Your task to perform on an android device: refresh tabs in the chrome app Image 0: 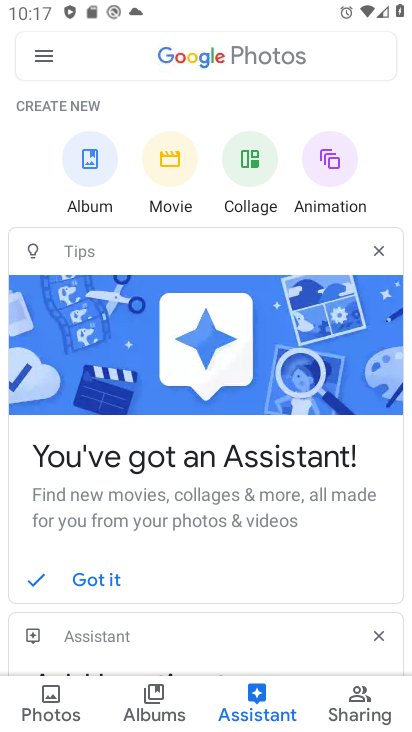
Step 0: press home button
Your task to perform on an android device: refresh tabs in the chrome app Image 1: 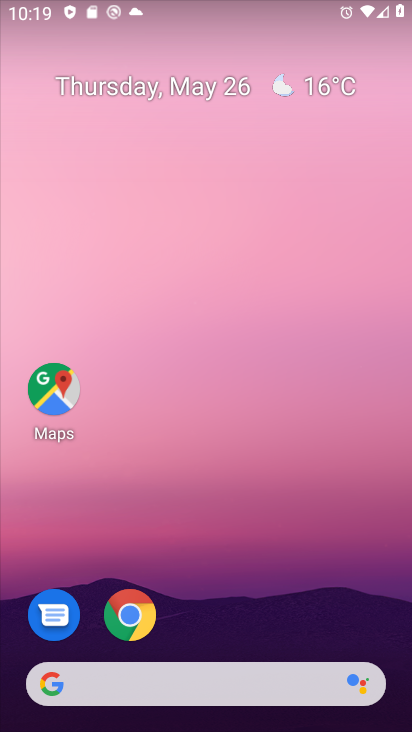
Step 1: drag from (222, 714) to (222, 109)
Your task to perform on an android device: refresh tabs in the chrome app Image 2: 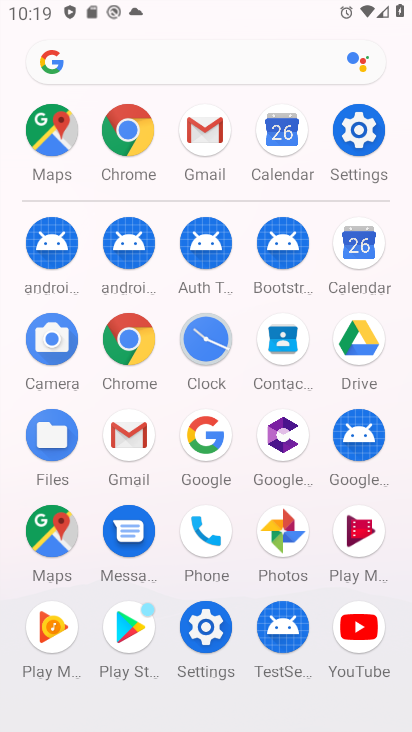
Step 2: click (128, 339)
Your task to perform on an android device: refresh tabs in the chrome app Image 3: 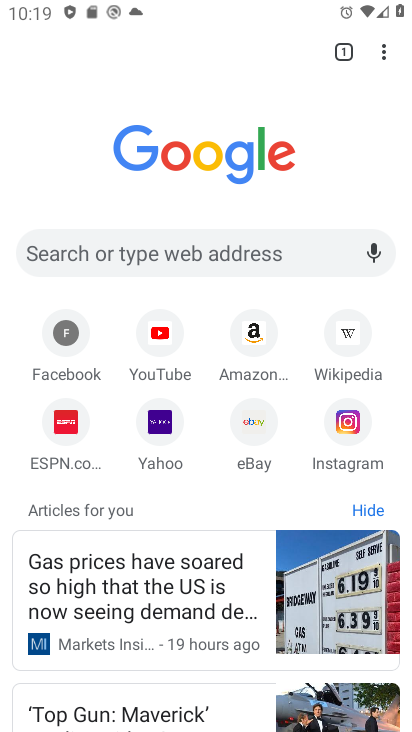
Step 3: click (382, 60)
Your task to perform on an android device: refresh tabs in the chrome app Image 4: 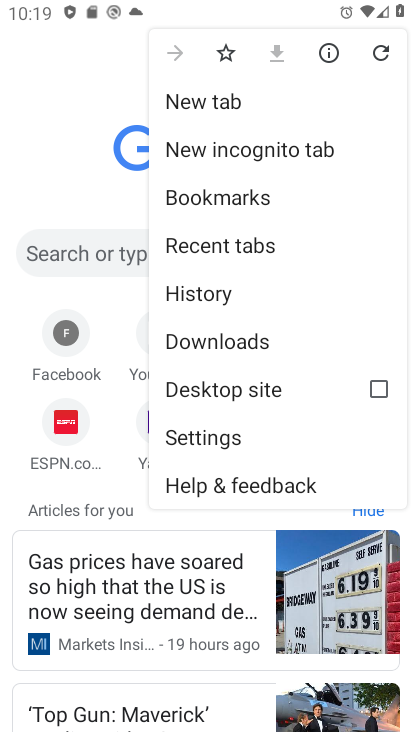
Step 4: click (380, 62)
Your task to perform on an android device: refresh tabs in the chrome app Image 5: 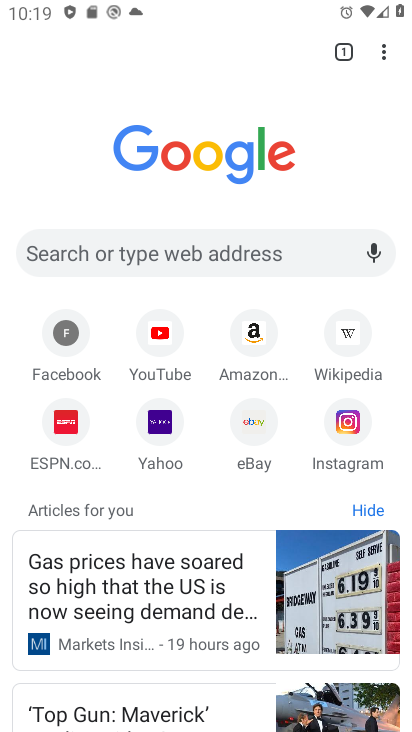
Step 5: task complete